Your task to perform on an android device: View the shopping cart on walmart.com. Search for "duracell triple a" on walmart.com, select the first entry, and add it to the cart. Image 0: 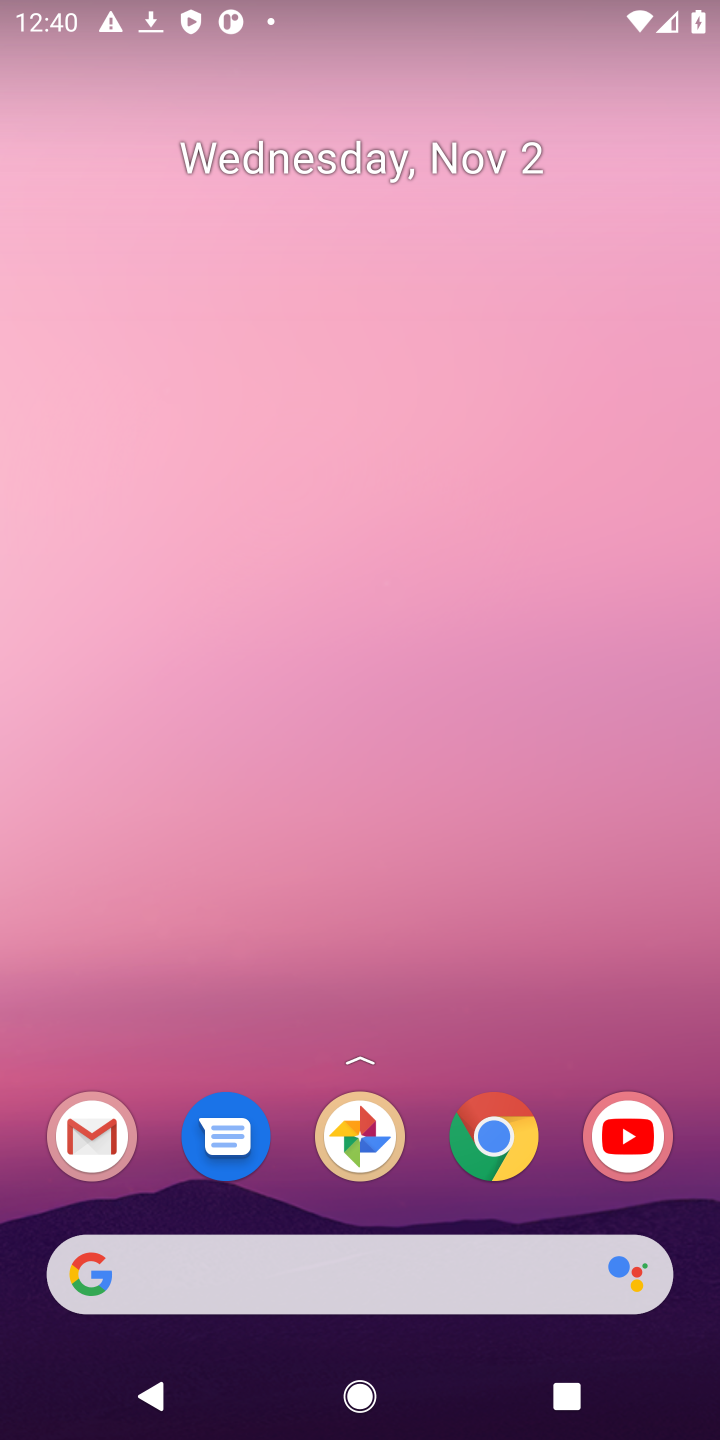
Step 0: click (487, 1129)
Your task to perform on an android device: View the shopping cart on walmart.com. Search for "duracell triple a" on walmart.com, select the first entry, and add it to the cart. Image 1: 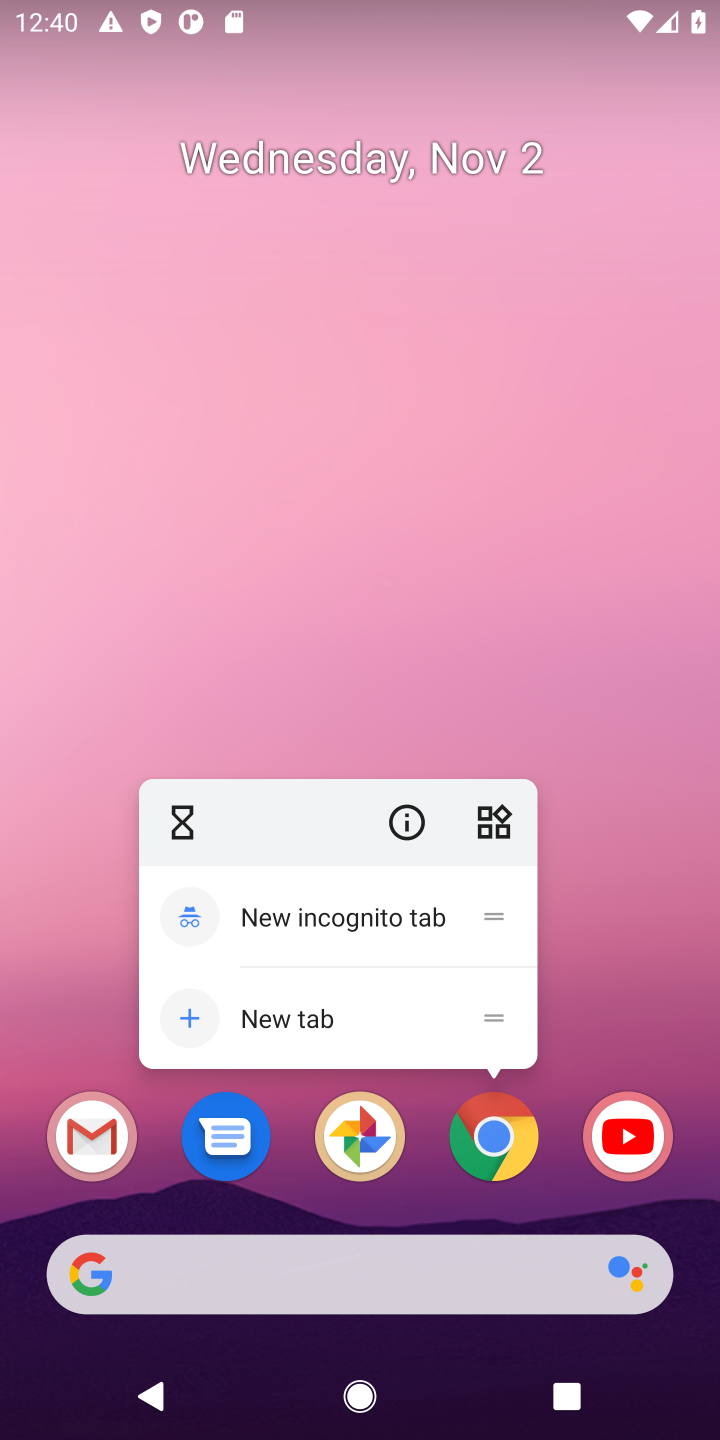
Step 1: click (494, 1152)
Your task to perform on an android device: View the shopping cart on walmart.com. Search for "duracell triple a" on walmart.com, select the first entry, and add it to the cart. Image 2: 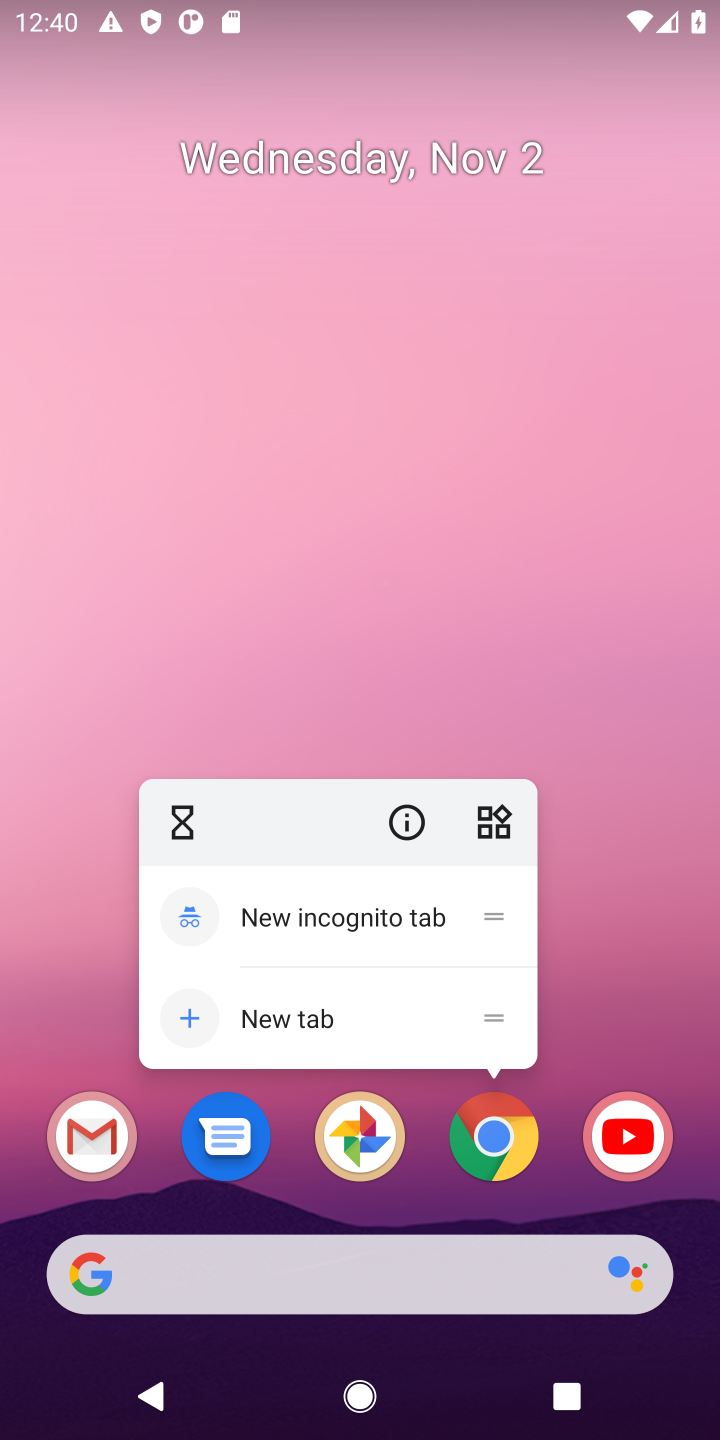
Step 2: click (488, 1148)
Your task to perform on an android device: View the shopping cart on walmart.com. Search for "duracell triple a" on walmart.com, select the first entry, and add it to the cart. Image 3: 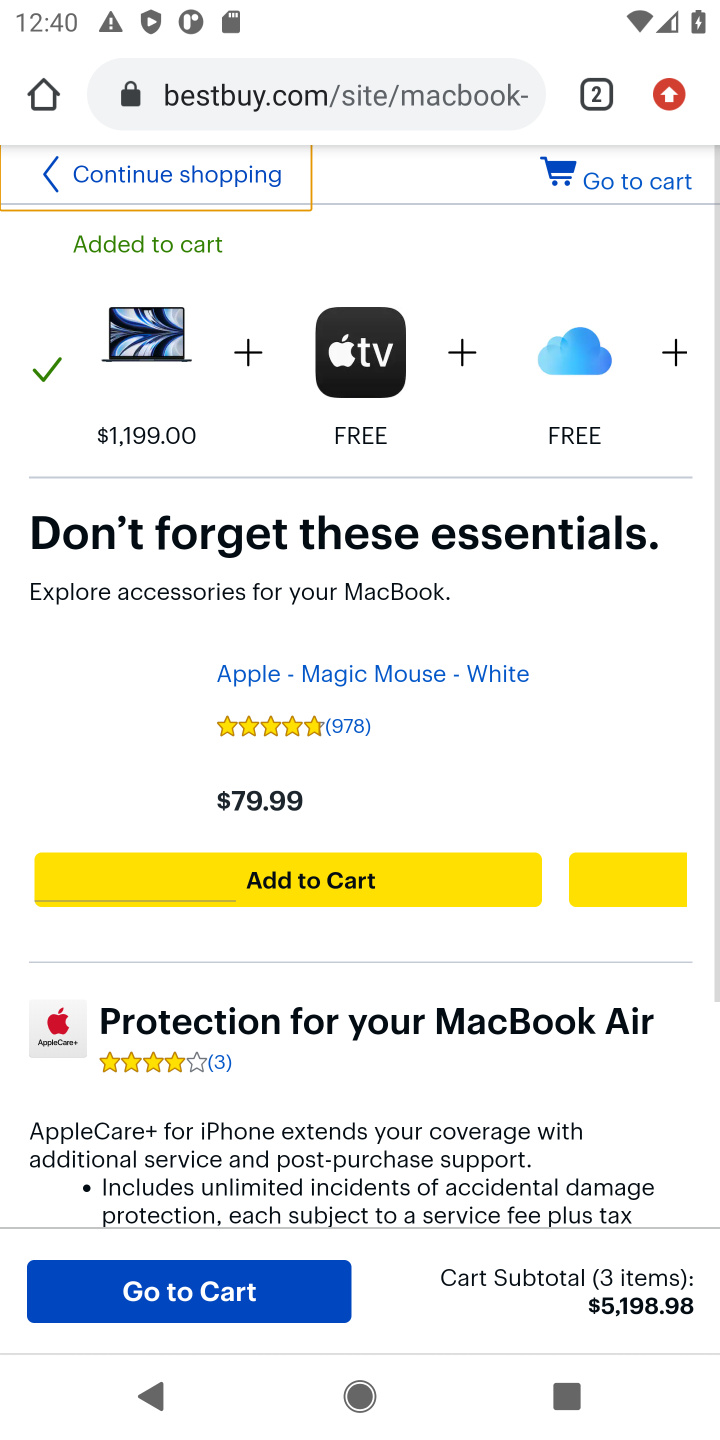
Step 3: click (318, 83)
Your task to perform on an android device: View the shopping cart on walmart.com. Search for "duracell triple a" on walmart.com, select the first entry, and add it to the cart. Image 4: 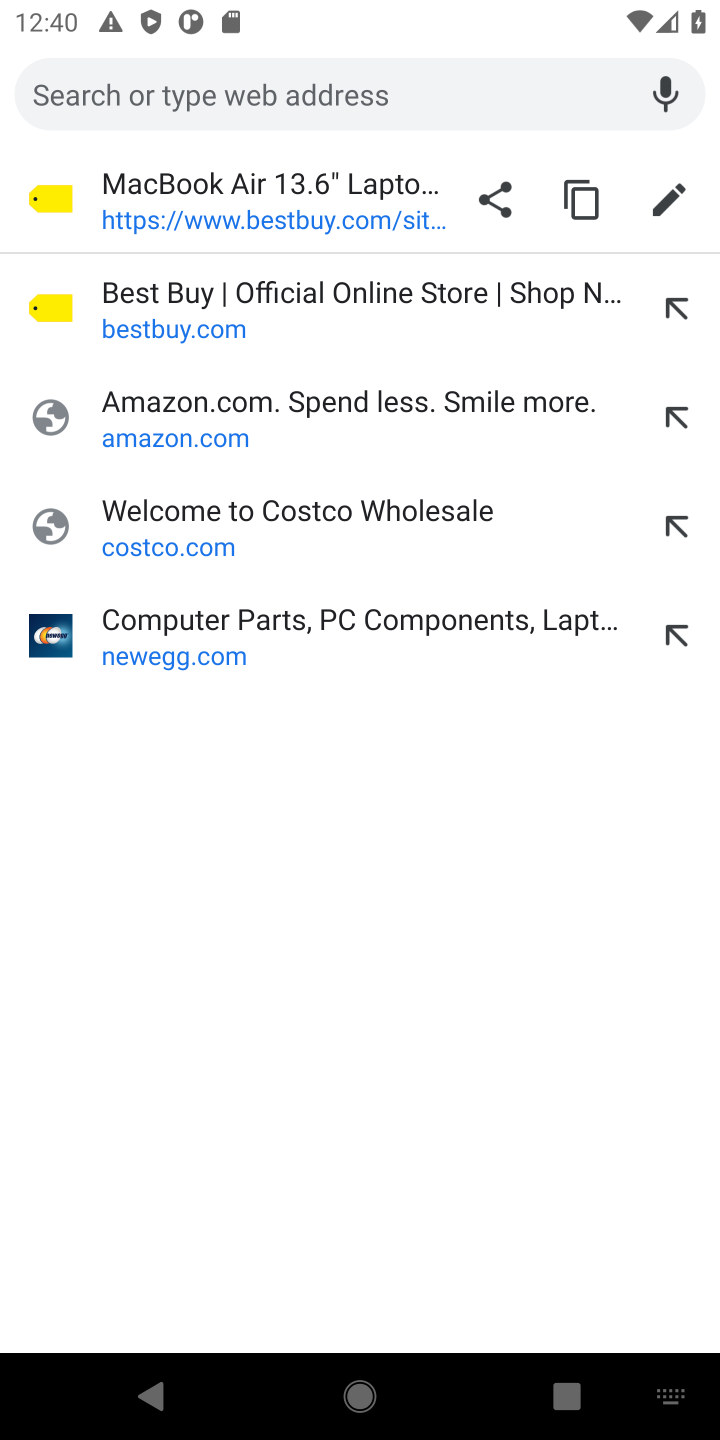
Step 4: type "walmart.com"
Your task to perform on an android device: View the shopping cart on walmart.com. Search for "duracell triple a" on walmart.com, select the first entry, and add it to the cart. Image 5: 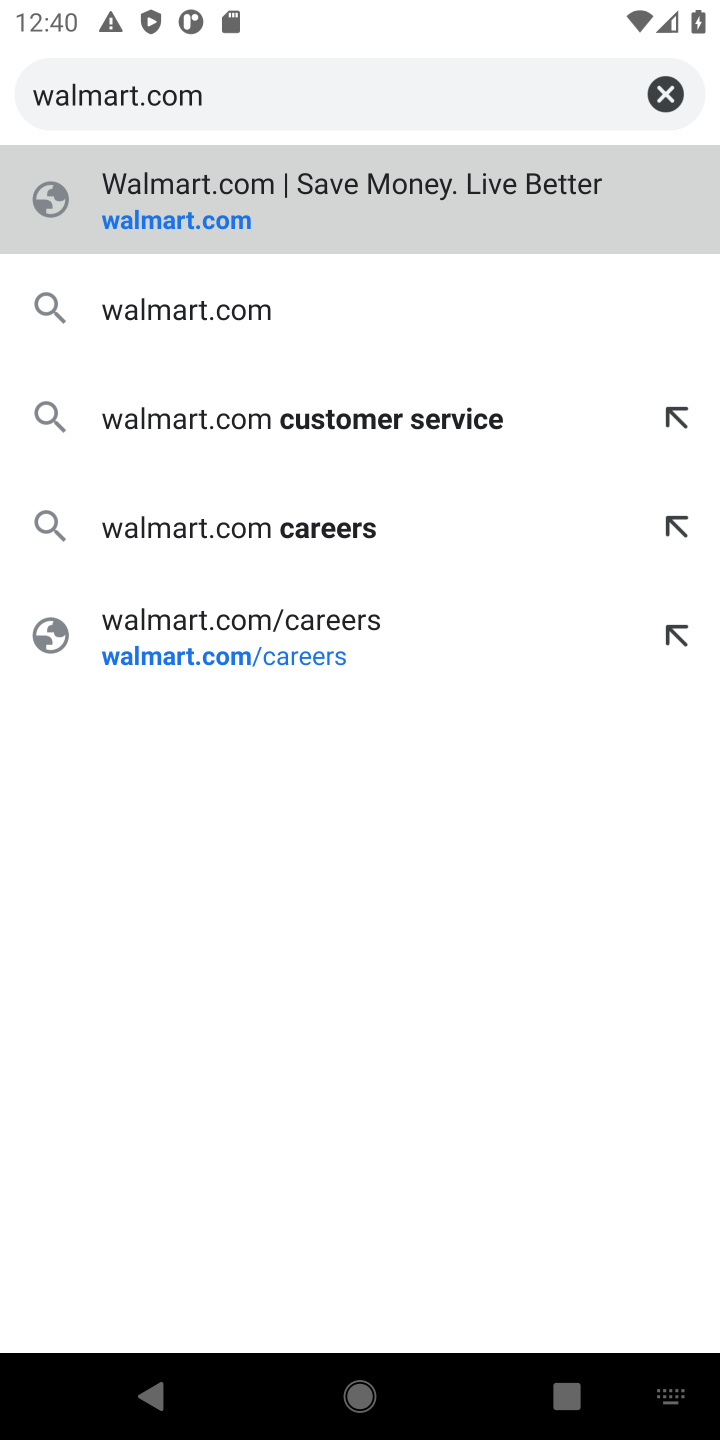
Step 5: type ""
Your task to perform on an android device: View the shopping cart on walmart.com. Search for "duracell triple a" on walmart.com, select the first entry, and add it to the cart. Image 6: 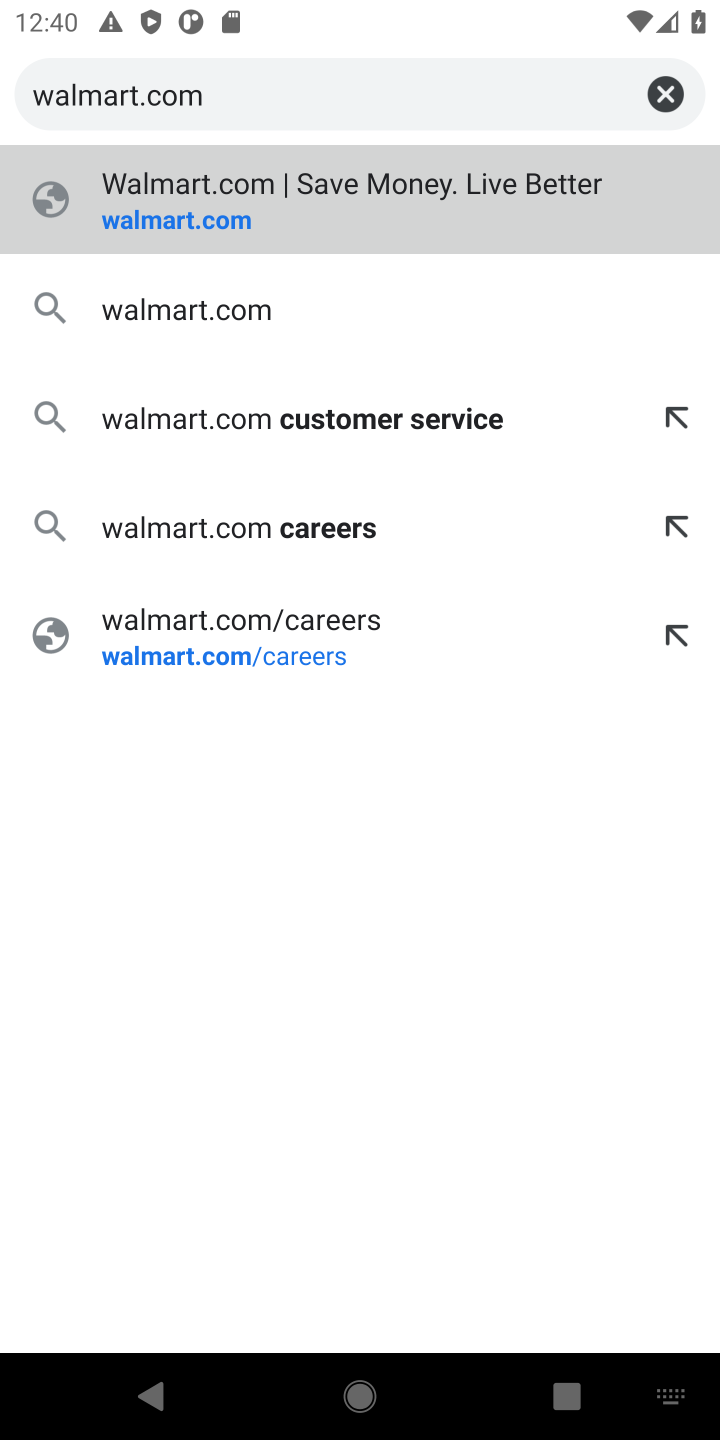
Step 6: click (490, 235)
Your task to perform on an android device: View the shopping cart on walmart.com. Search for "duracell triple a" on walmart.com, select the first entry, and add it to the cart. Image 7: 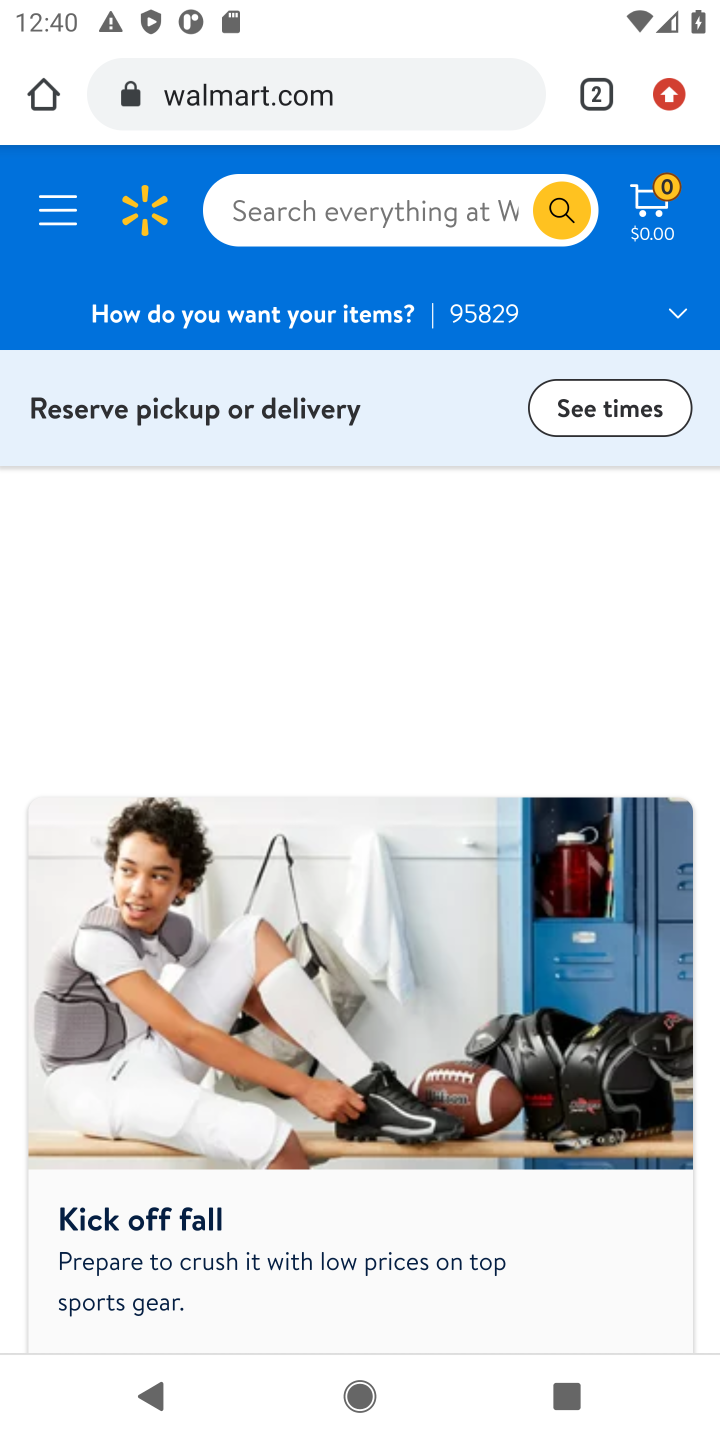
Step 7: click (642, 186)
Your task to perform on an android device: View the shopping cart on walmart.com. Search for "duracell triple a" on walmart.com, select the first entry, and add it to the cart. Image 8: 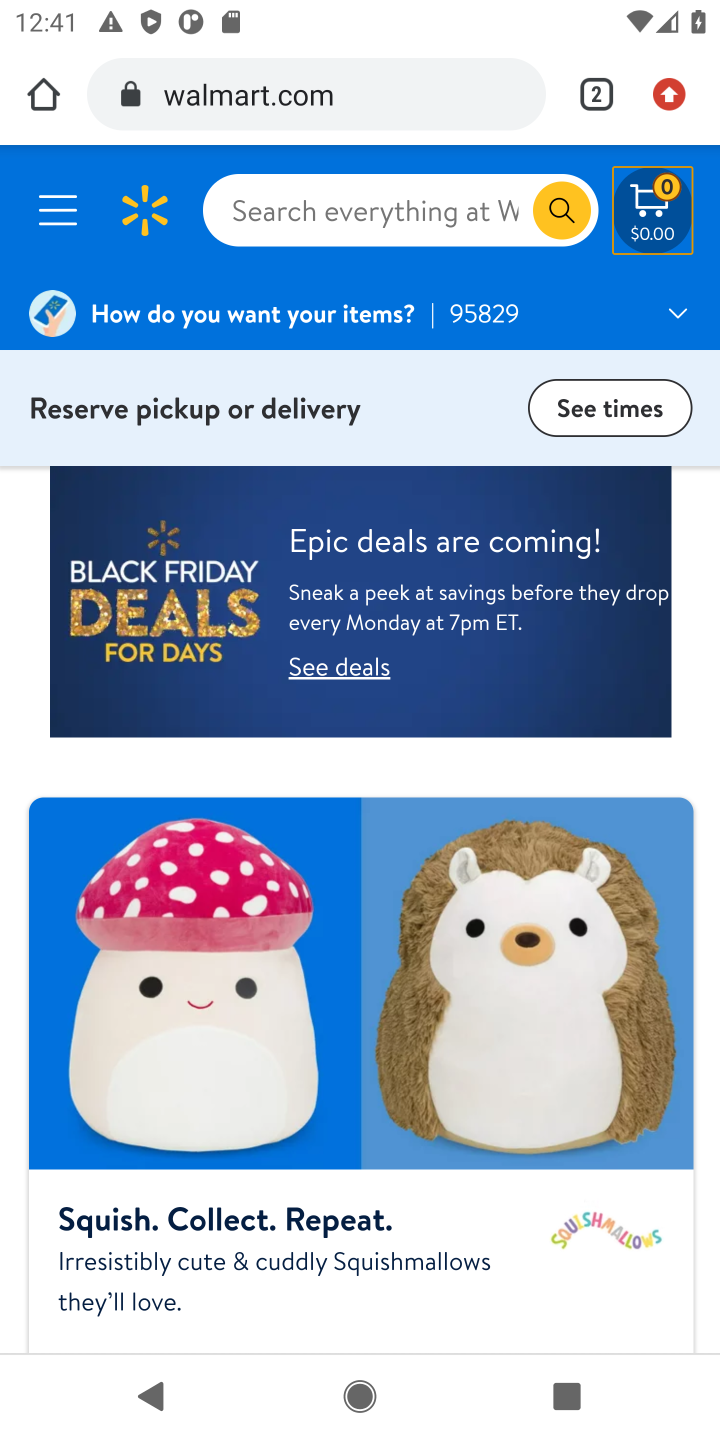
Step 8: click (280, 212)
Your task to perform on an android device: View the shopping cart on walmart.com. Search for "duracell triple a" on walmart.com, select the first entry, and add it to the cart. Image 9: 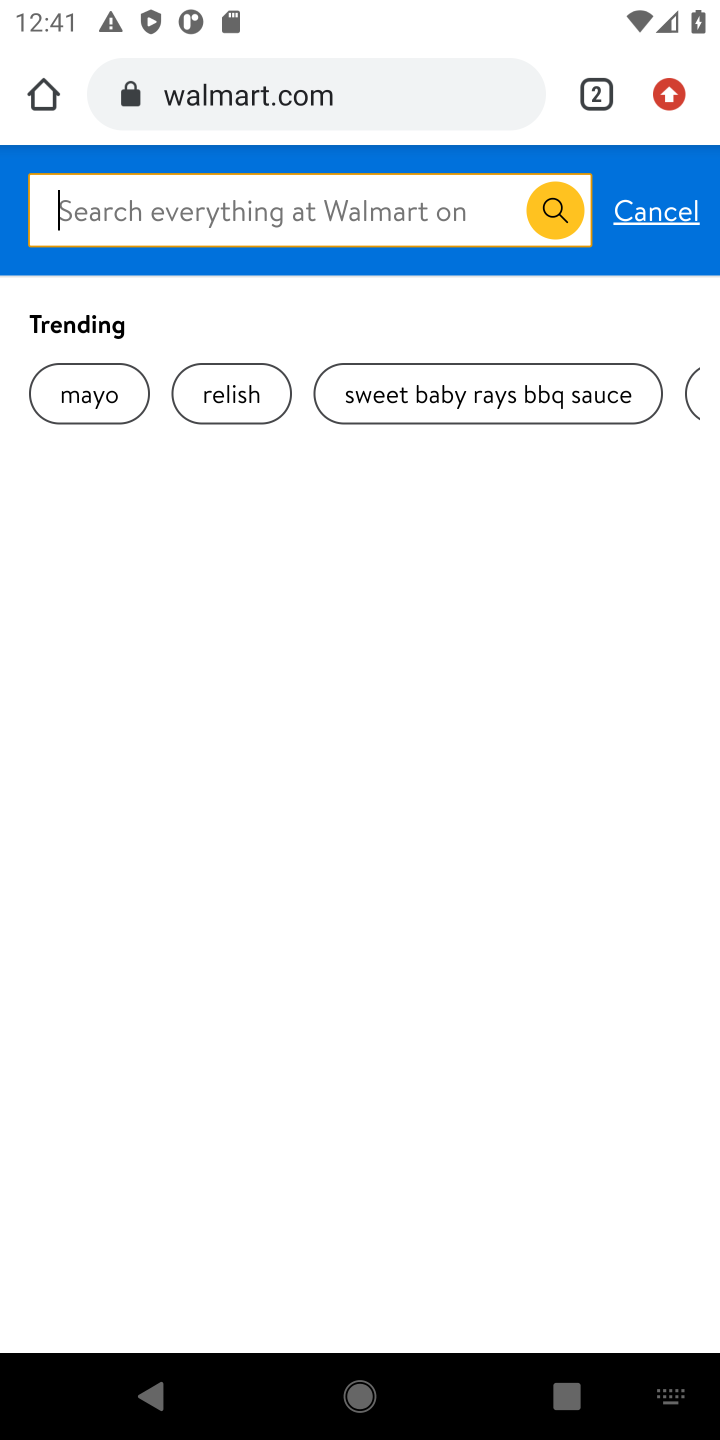
Step 9: type "duracell triple a"
Your task to perform on an android device: View the shopping cart on walmart.com. Search for "duracell triple a" on walmart.com, select the first entry, and add it to the cart. Image 10: 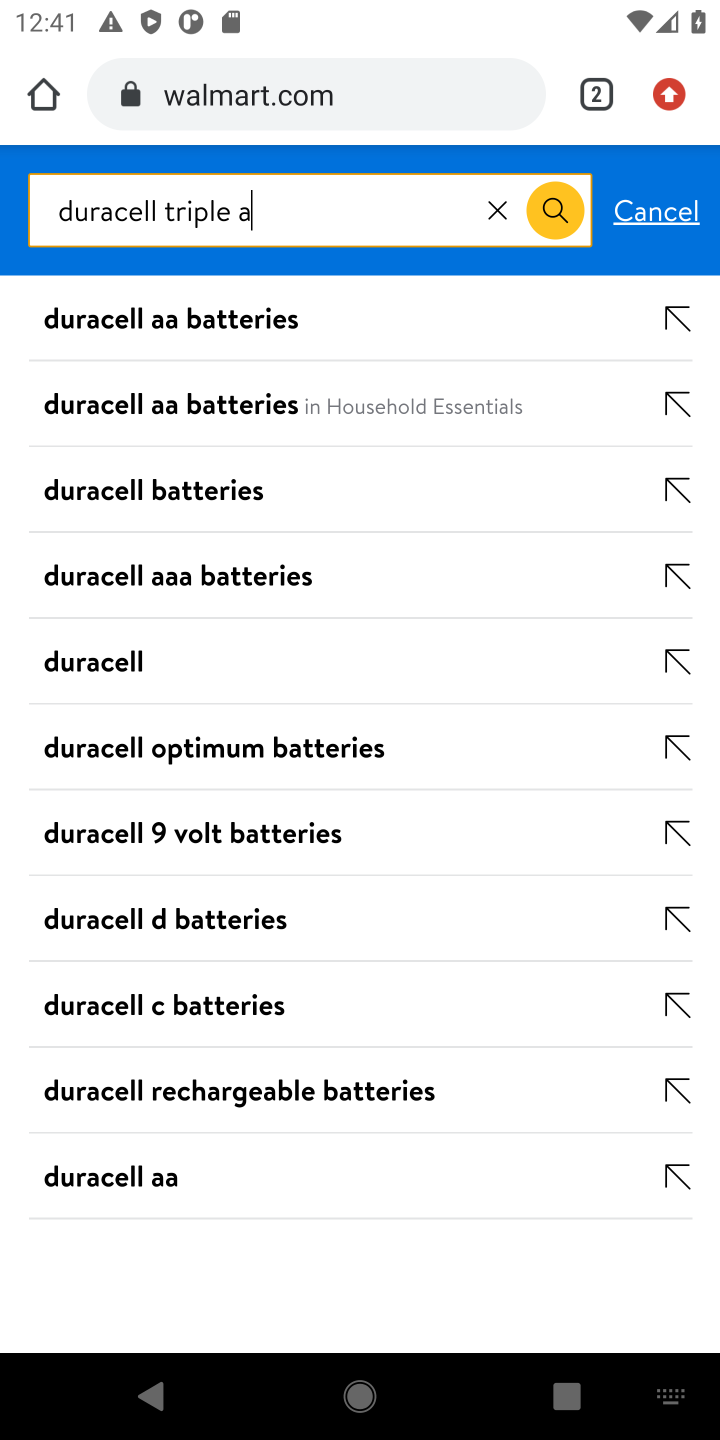
Step 10: type ""
Your task to perform on an android device: View the shopping cart on walmart.com. Search for "duracell triple a" on walmart.com, select the first entry, and add it to the cart. Image 11: 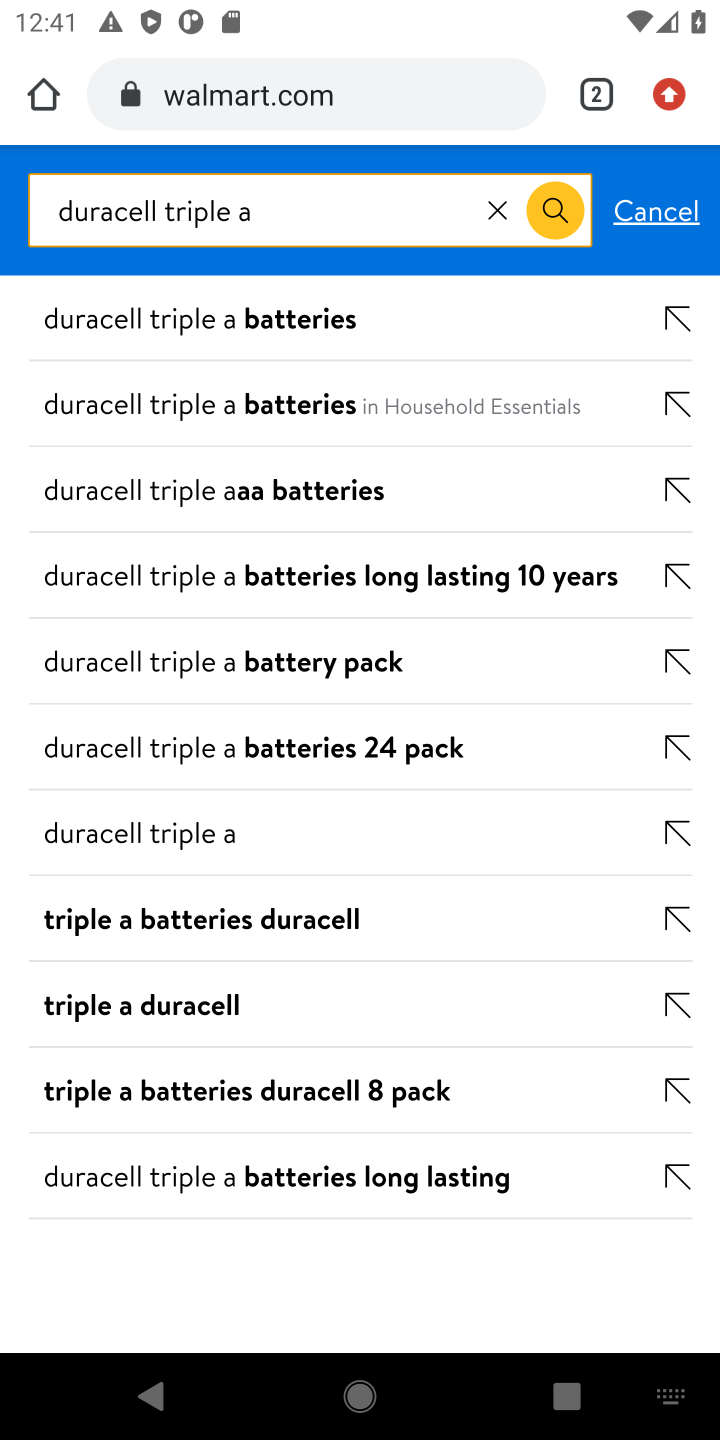
Step 11: click (285, 334)
Your task to perform on an android device: View the shopping cart on walmart.com. Search for "duracell triple a" on walmart.com, select the first entry, and add it to the cart. Image 12: 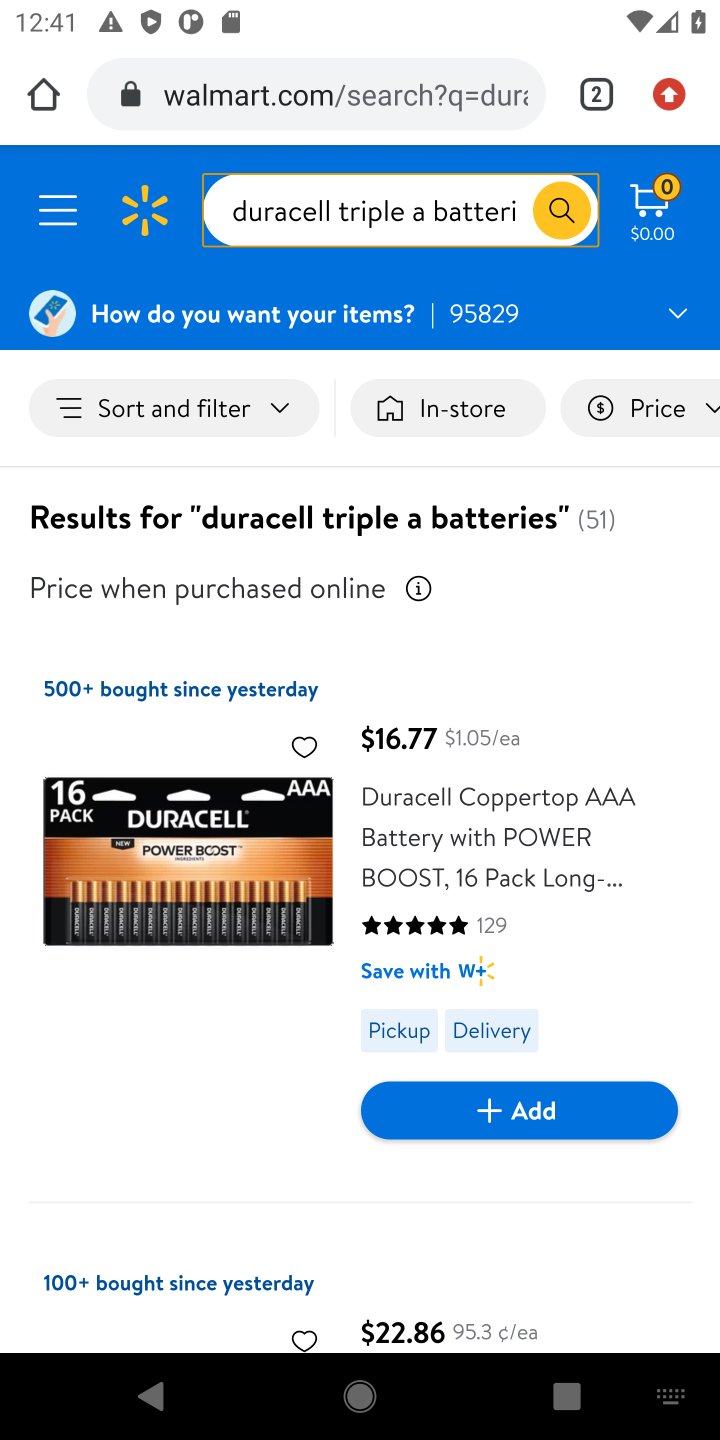
Step 12: click (543, 1089)
Your task to perform on an android device: View the shopping cart on walmart.com. Search for "duracell triple a" on walmart.com, select the first entry, and add it to the cart. Image 13: 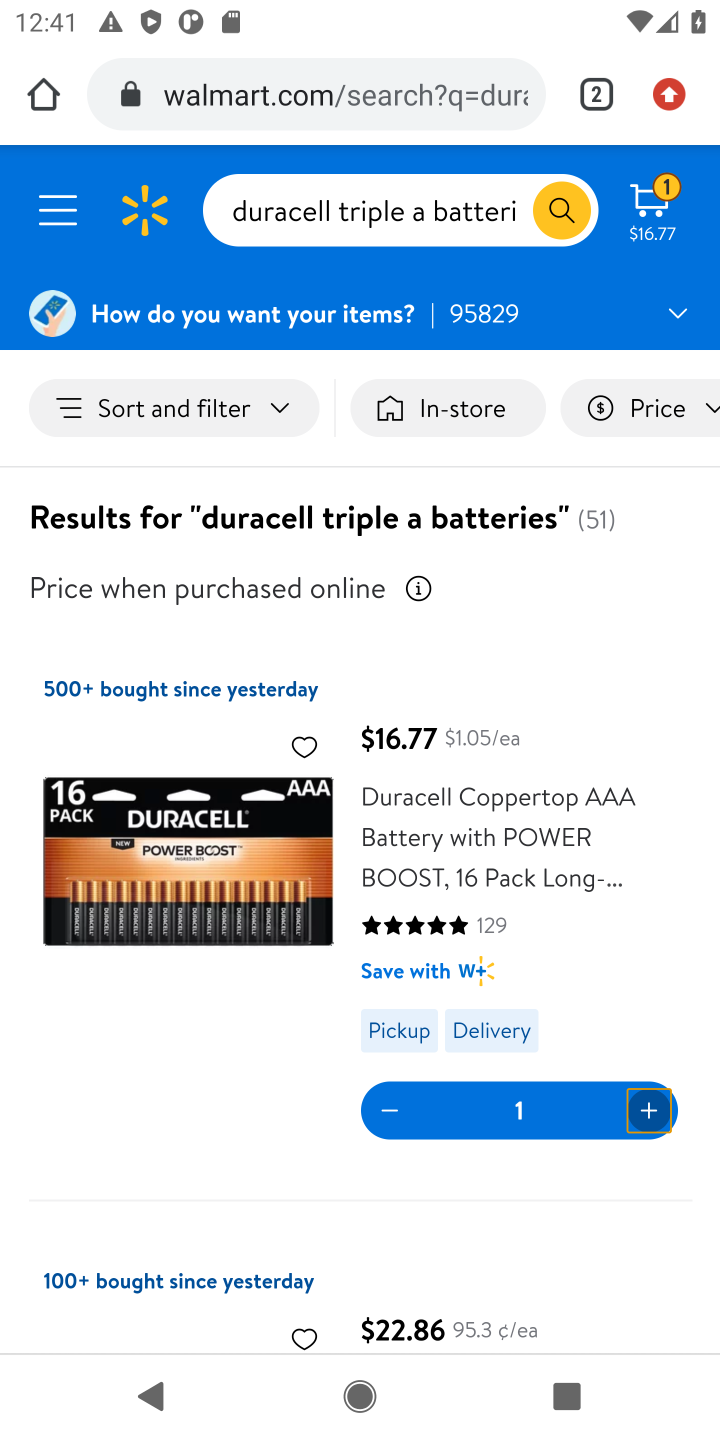
Step 13: click (655, 198)
Your task to perform on an android device: View the shopping cart on walmart.com. Search for "duracell triple a" on walmart.com, select the first entry, and add it to the cart. Image 14: 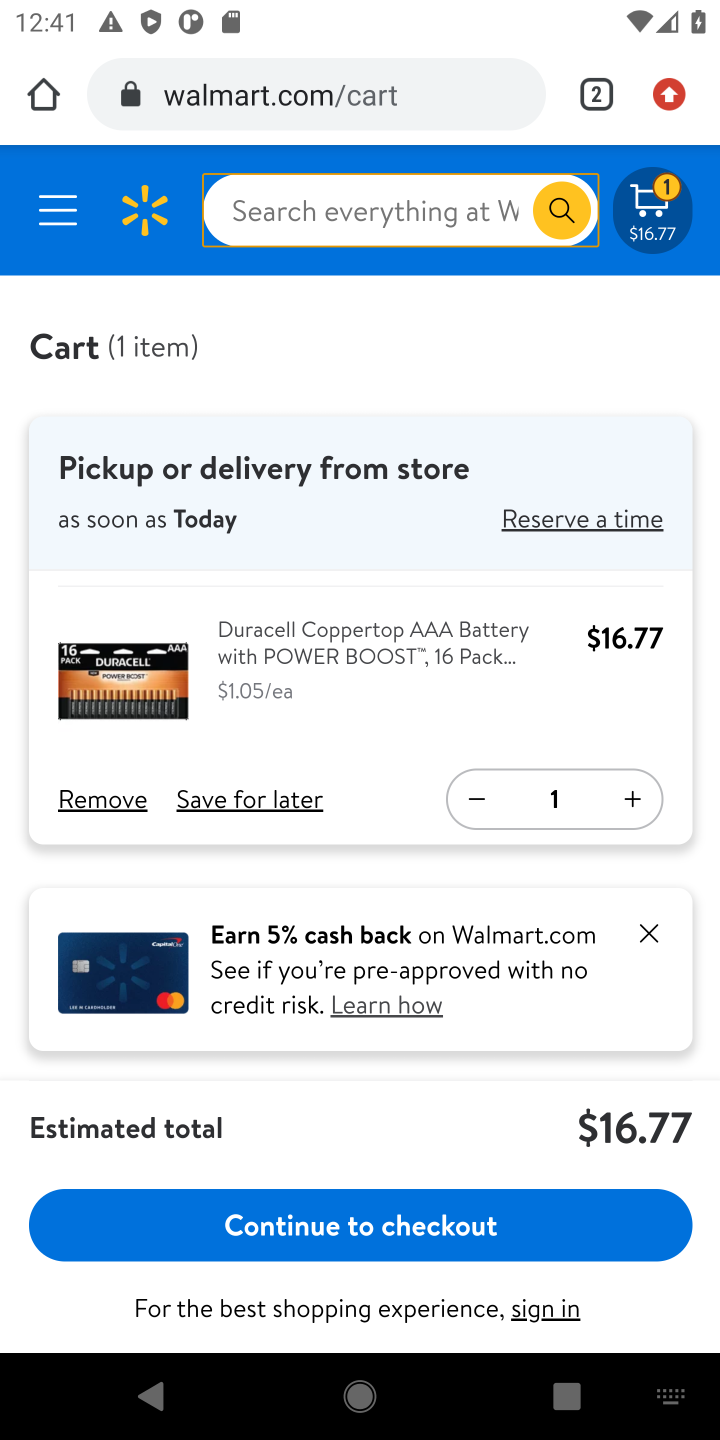
Step 14: click (493, 1210)
Your task to perform on an android device: View the shopping cart on walmart.com. Search for "duracell triple a" on walmart.com, select the first entry, and add it to the cart. Image 15: 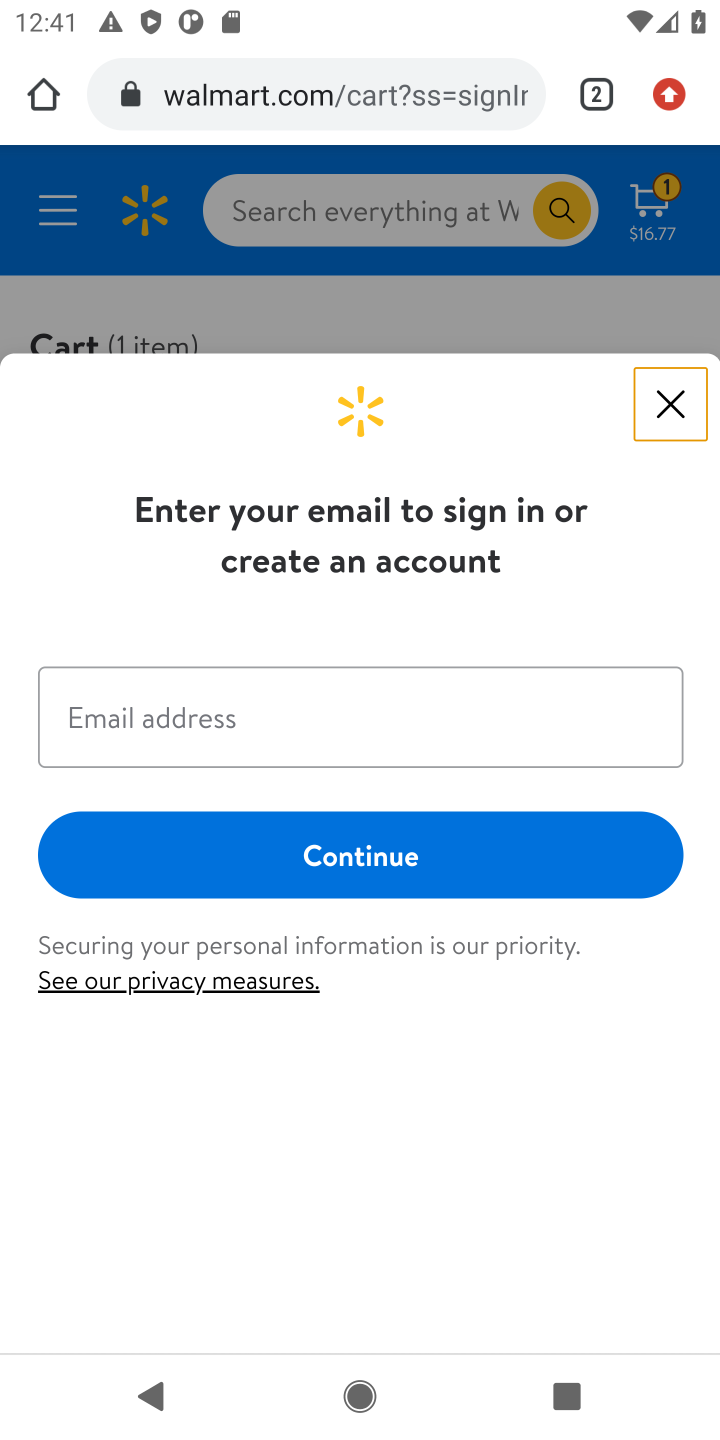
Step 15: click (663, 395)
Your task to perform on an android device: View the shopping cart on walmart.com. Search for "duracell triple a" on walmart.com, select the first entry, and add it to the cart. Image 16: 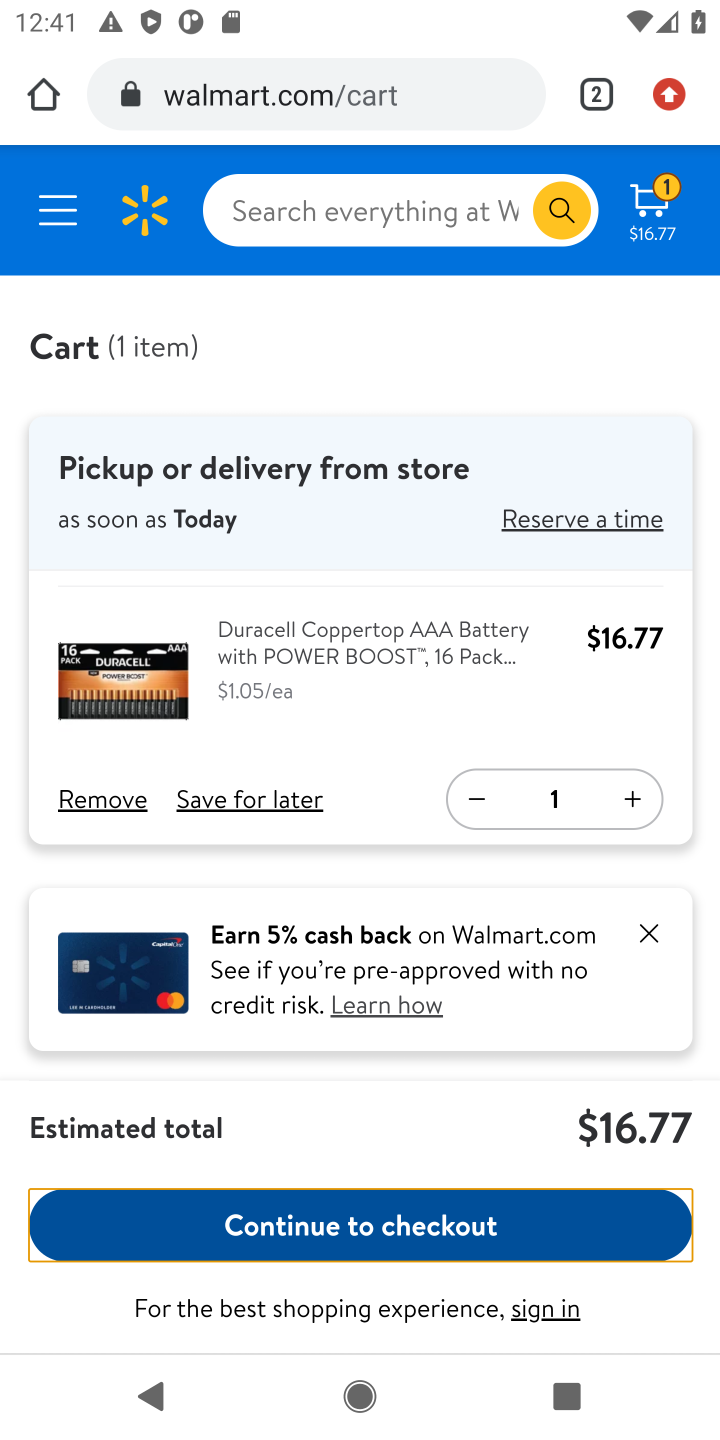
Step 16: click (658, 928)
Your task to perform on an android device: View the shopping cart on walmart.com. Search for "duracell triple a" on walmart.com, select the first entry, and add it to the cart. Image 17: 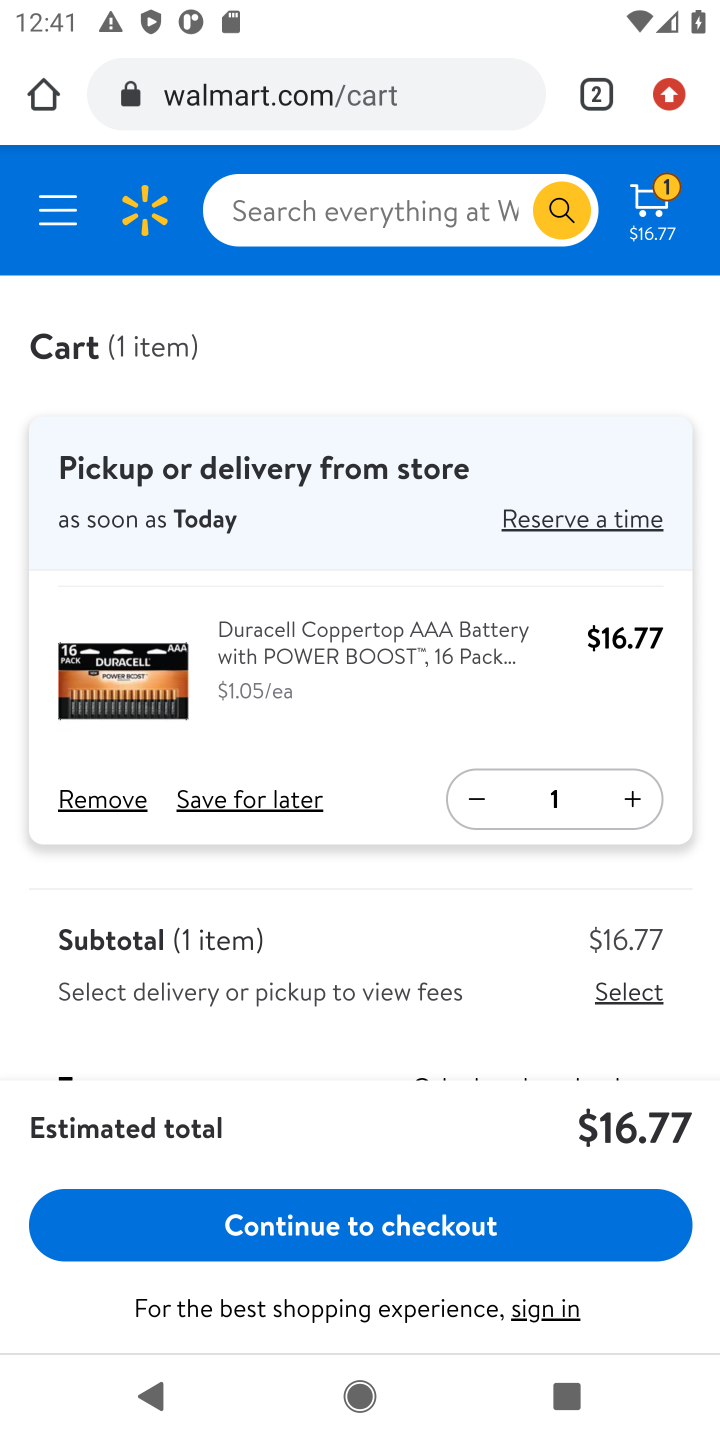
Step 17: drag from (514, 930) to (443, 487)
Your task to perform on an android device: View the shopping cart on walmart.com. Search for "duracell triple a" on walmart.com, select the first entry, and add it to the cart. Image 18: 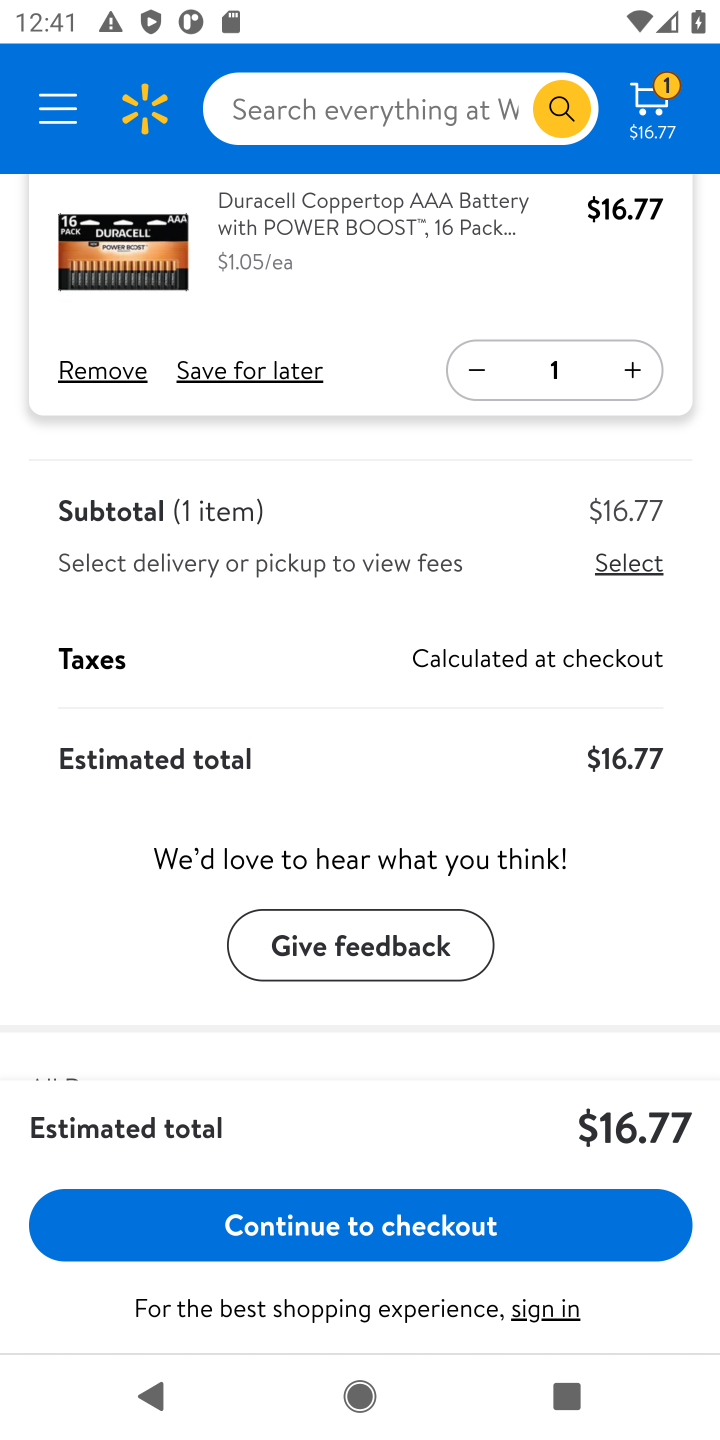
Step 18: click (381, 1224)
Your task to perform on an android device: View the shopping cart on walmart.com. Search for "duracell triple a" on walmart.com, select the first entry, and add it to the cart. Image 19: 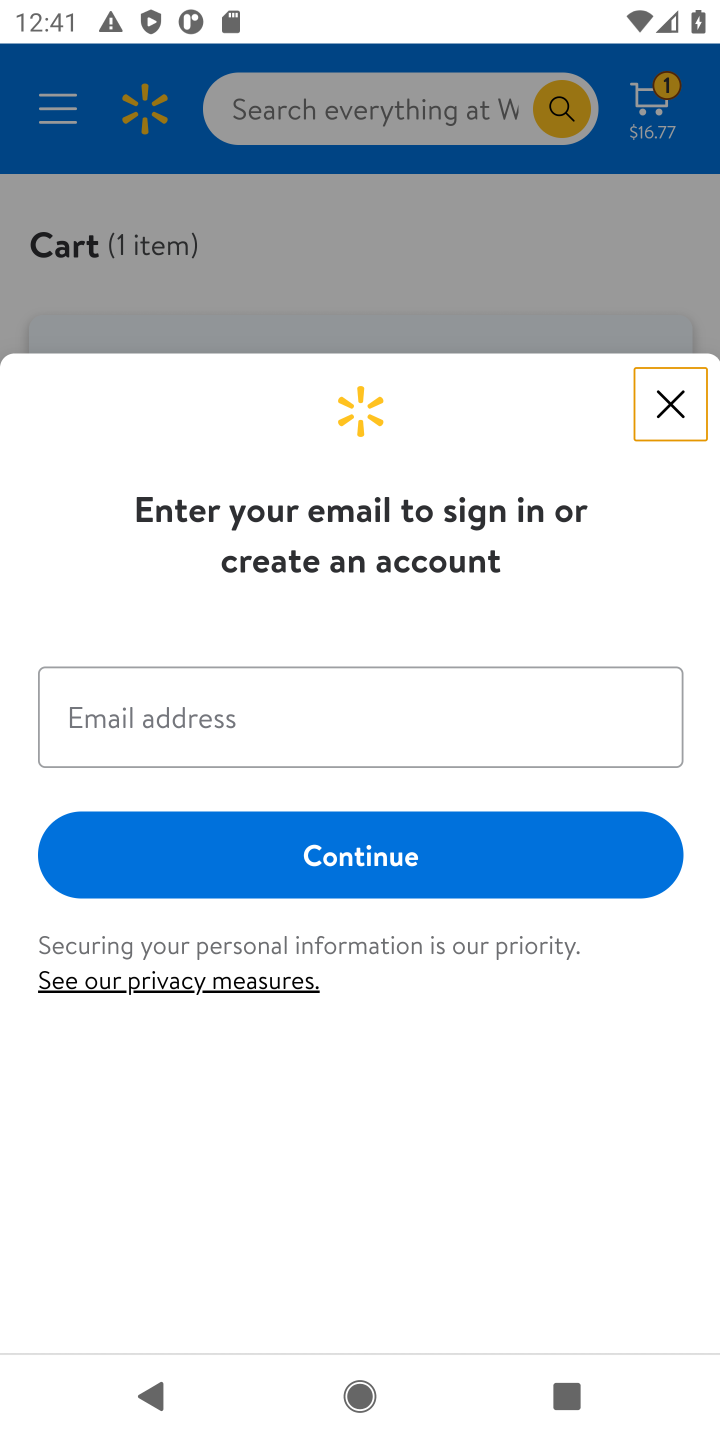
Step 19: click (683, 386)
Your task to perform on an android device: View the shopping cart on walmart.com. Search for "duracell triple a" on walmart.com, select the first entry, and add it to the cart. Image 20: 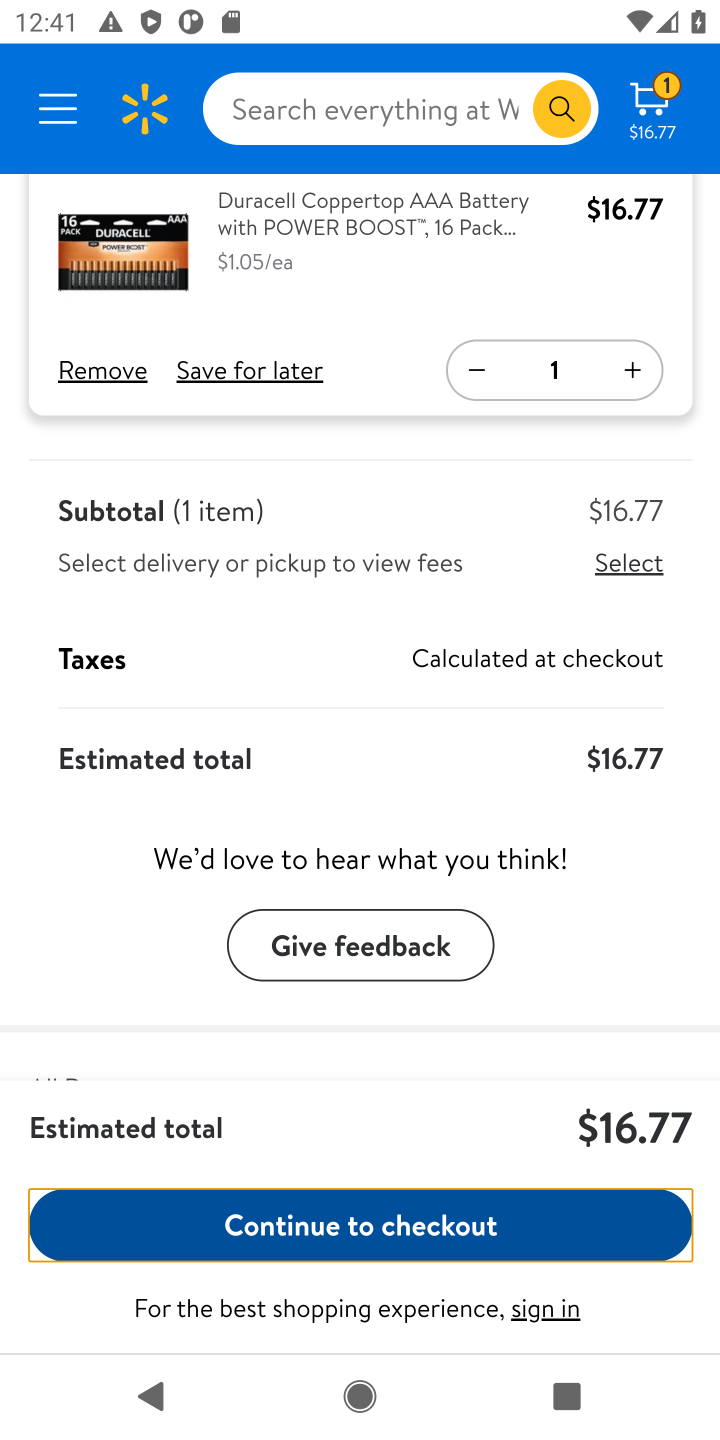
Step 20: task complete